Your task to perform on an android device: Open internet settings Image 0: 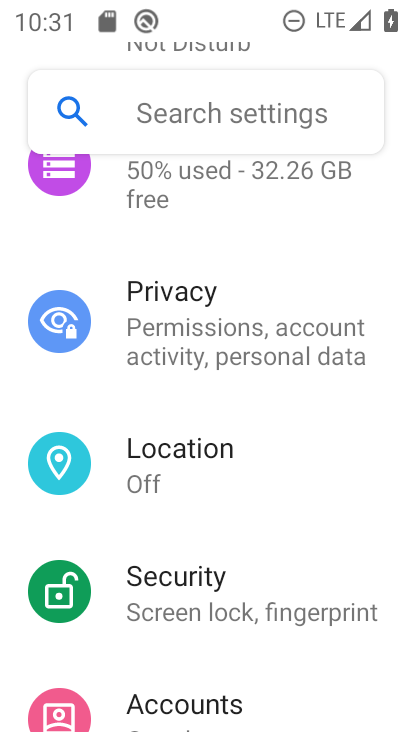
Step 0: drag from (167, 250) to (163, 591)
Your task to perform on an android device: Open internet settings Image 1: 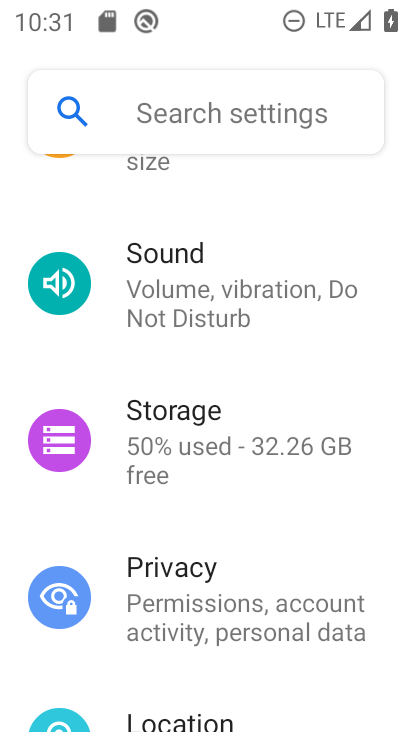
Step 1: drag from (186, 335) to (198, 670)
Your task to perform on an android device: Open internet settings Image 2: 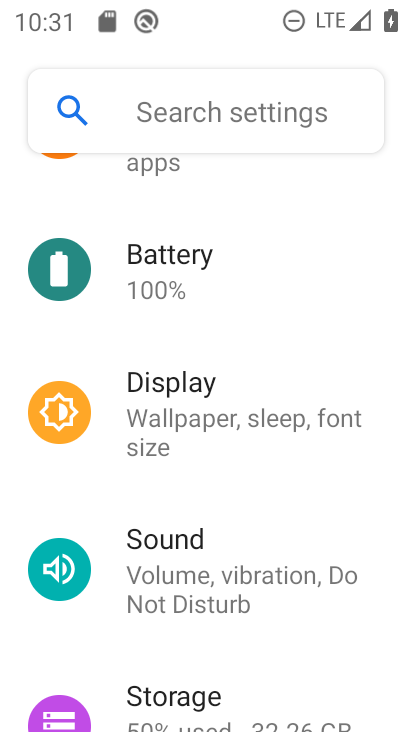
Step 2: drag from (306, 374) to (290, 604)
Your task to perform on an android device: Open internet settings Image 3: 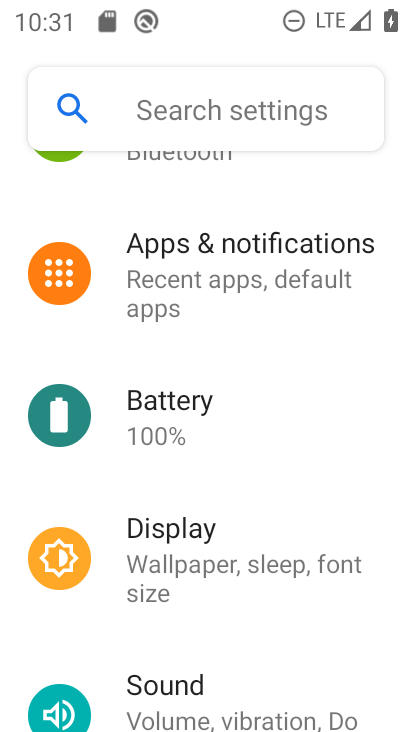
Step 3: drag from (268, 371) to (258, 657)
Your task to perform on an android device: Open internet settings Image 4: 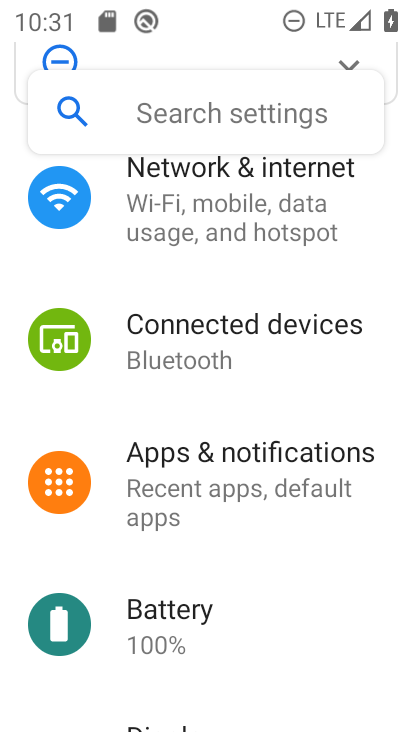
Step 4: click (204, 210)
Your task to perform on an android device: Open internet settings Image 5: 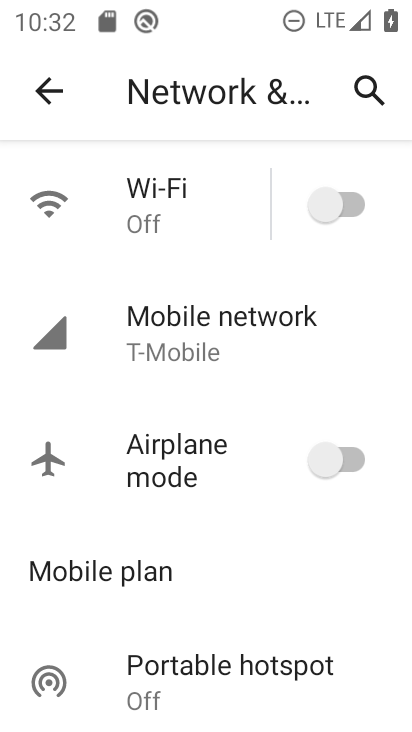
Step 5: click (151, 330)
Your task to perform on an android device: Open internet settings Image 6: 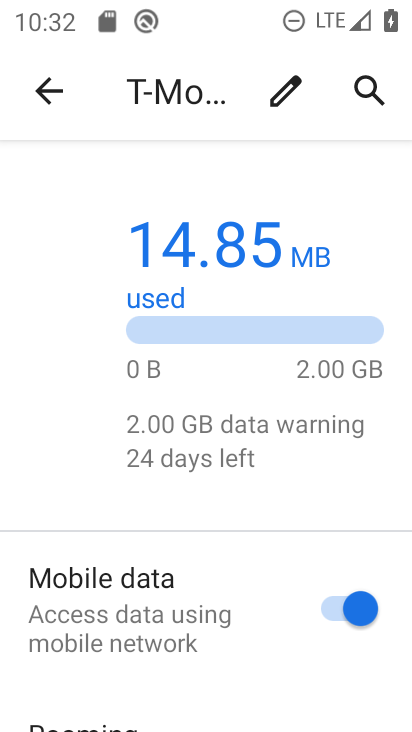
Step 6: task complete